Your task to perform on an android device: Search for Mexican restaurants on Maps Image 0: 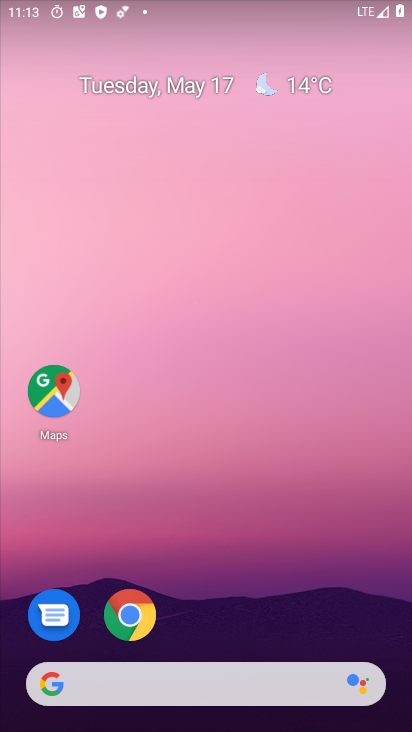
Step 0: press home button
Your task to perform on an android device: Search for Mexican restaurants on Maps Image 1: 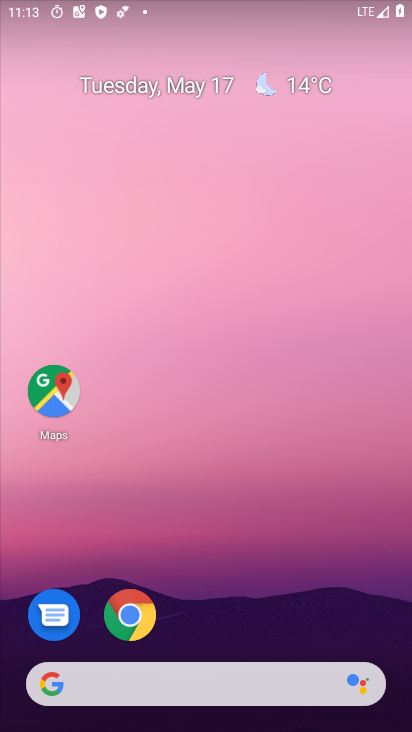
Step 1: click (54, 385)
Your task to perform on an android device: Search for Mexican restaurants on Maps Image 2: 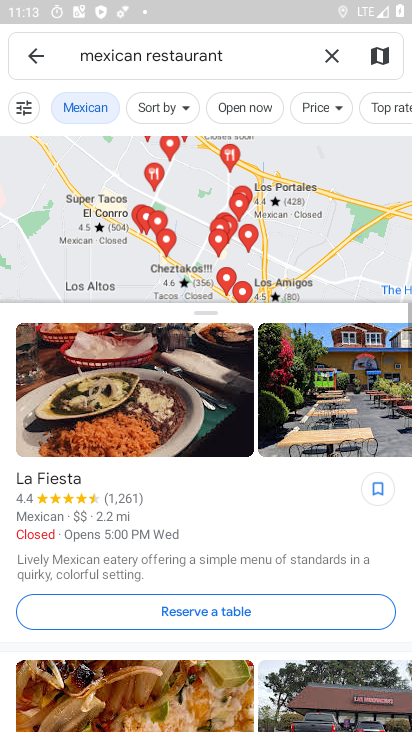
Step 2: task complete